Your task to perform on an android device: Is it going to rain tomorrow? Image 0: 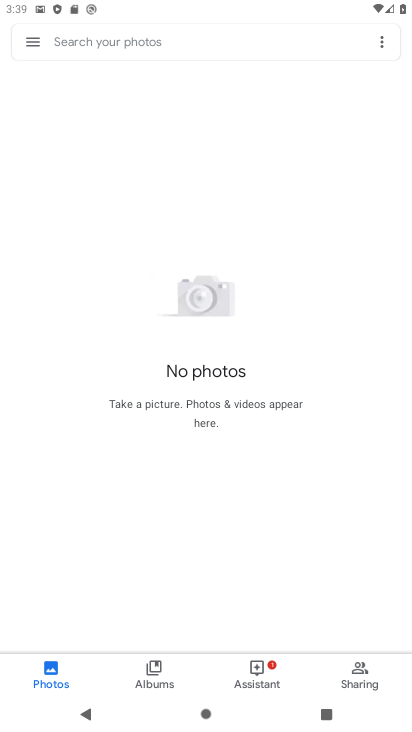
Step 0: press home button
Your task to perform on an android device: Is it going to rain tomorrow? Image 1: 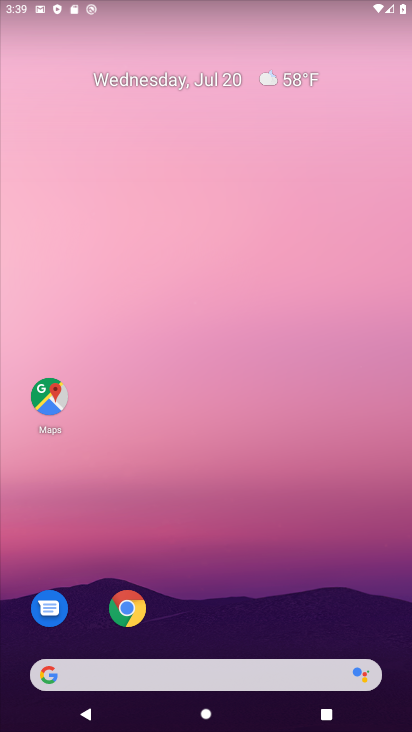
Step 1: click (137, 667)
Your task to perform on an android device: Is it going to rain tomorrow? Image 2: 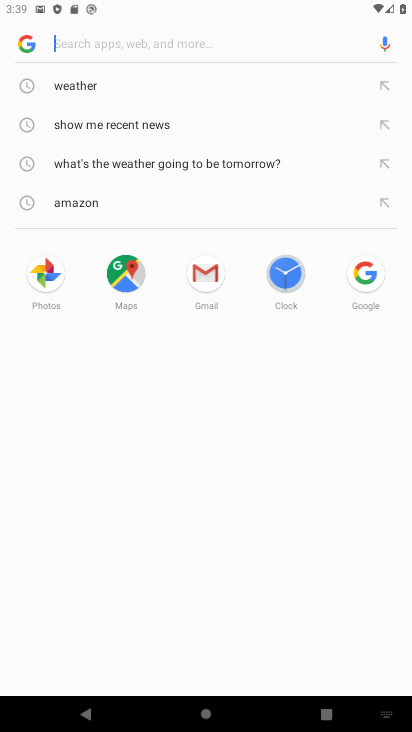
Step 2: click (92, 85)
Your task to perform on an android device: Is it going to rain tomorrow? Image 3: 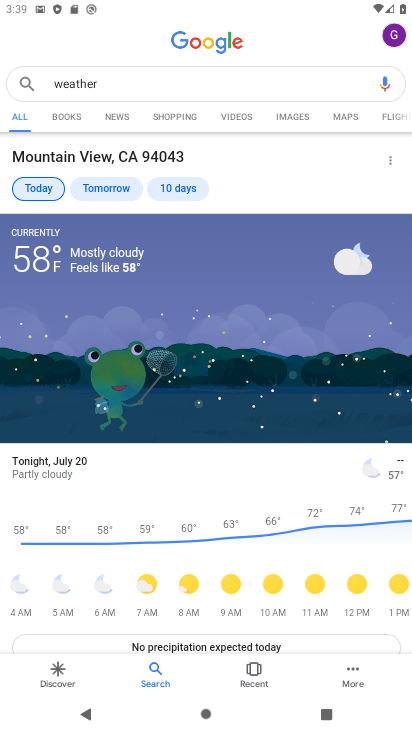
Step 3: task complete